Your task to perform on an android device: check storage Image 0: 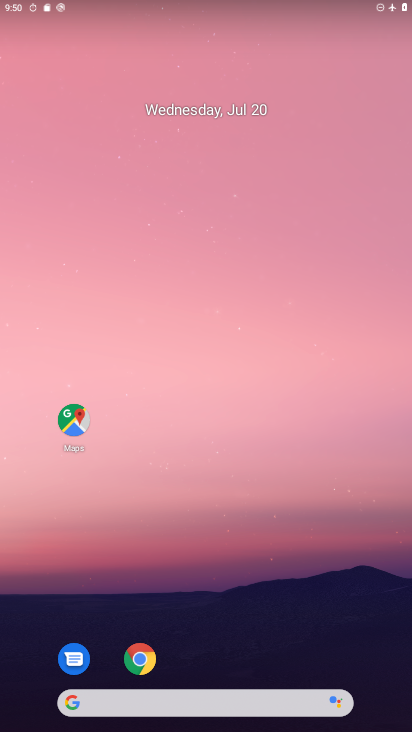
Step 0: drag from (333, 626) to (294, 103)
Your task to perform on an android device: check storage Image 1: 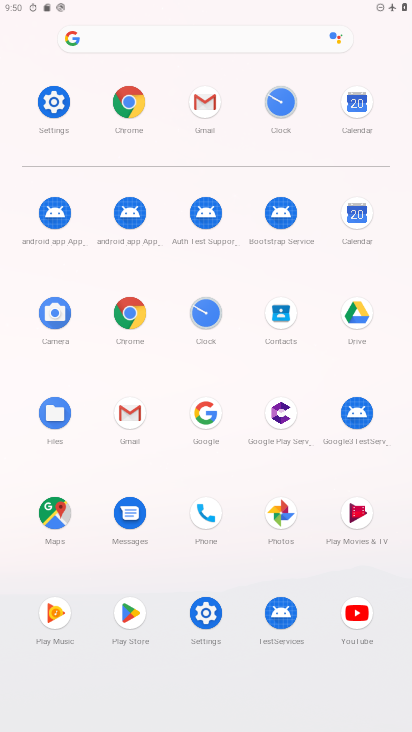
Step 1: click (55, 90)
Your task to perform on an android device: check storage Image 2: 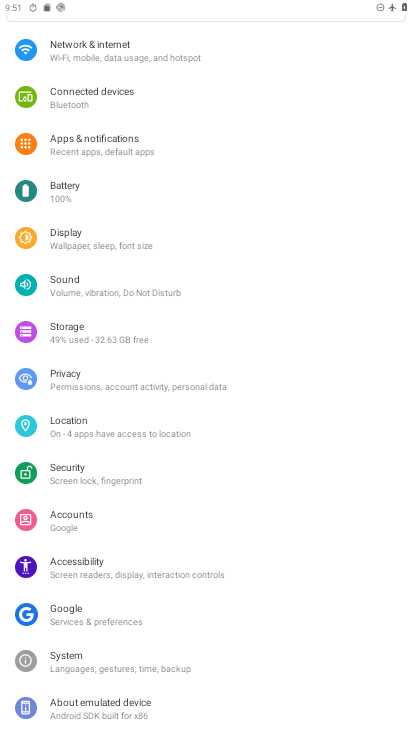
Step 2: click (84, 331)
Your task to perform on an android device: check storage Image 3: 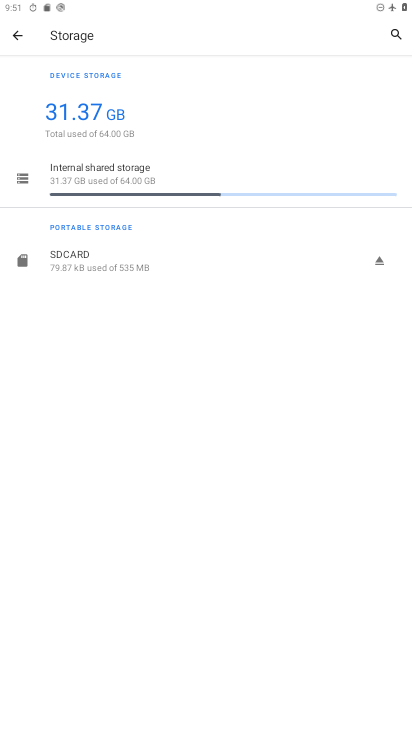
Step 3: task complete